Your task to perform on an android device: Go to settings Image 0: 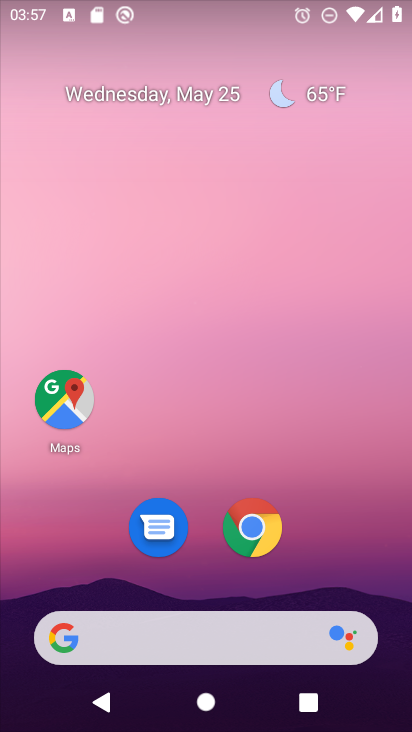
Step 0: drag from (214, 611) to (381, 11)
Your task to perform on an android device: Go to settings Image 1: 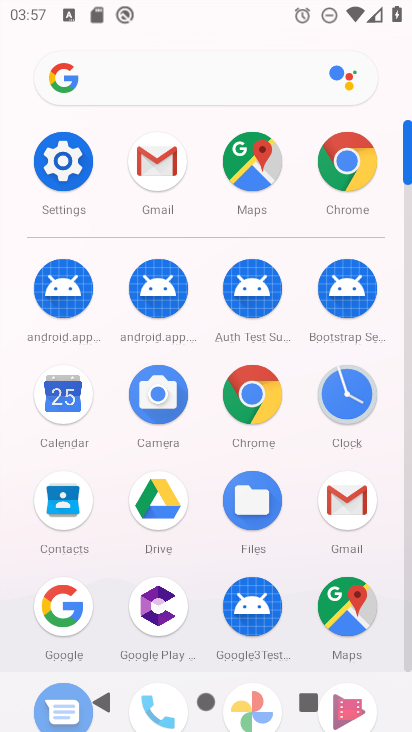
Step 1: click (60, 144)
Your task to perform on an android device: Go to settings Image 2: 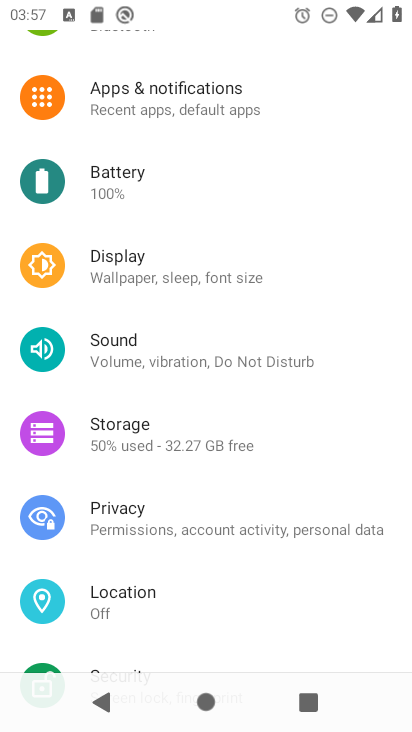
Step 2: task complete